Your task to perform on an android device: clear all cookies in the chrome app Image 0: 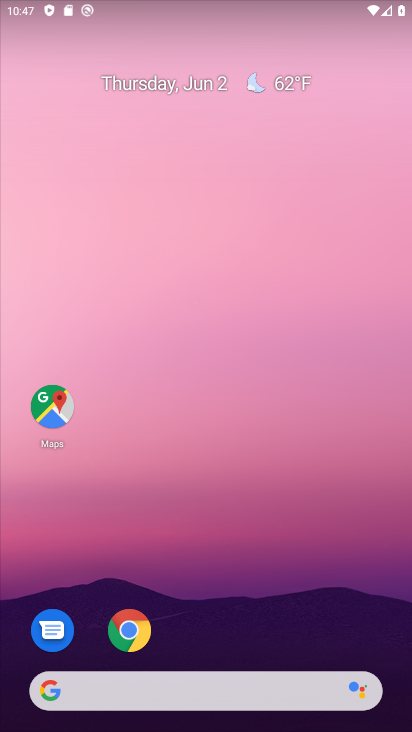
Step 0: press home button
Your task to perform on an android device: clear all cookies in the chrome app Image 1: 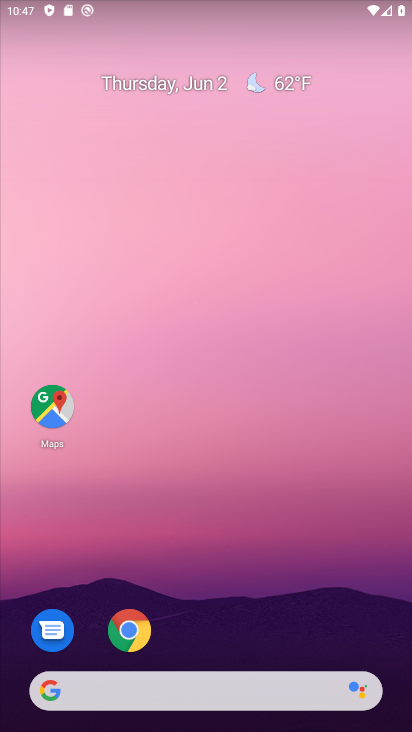
Step 1: drag from (137, 699) to (302, 139)
Your task to perform on an android device: clear all cookies in the chrome app Image 2: 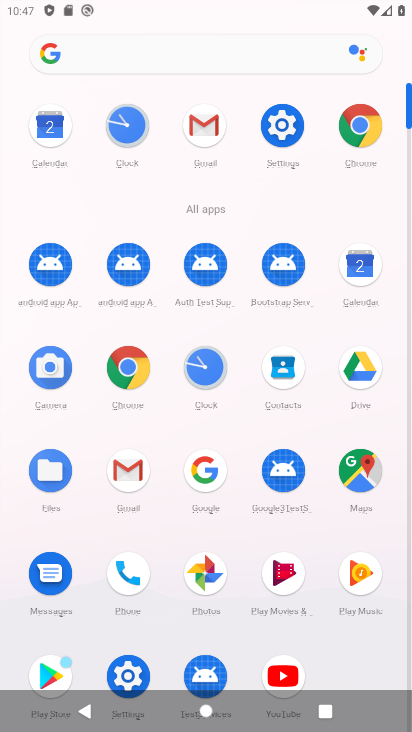
Step 2: click (364, 131)
Your task to perform on an android device: clear all cookies in the chrome app Image 3: 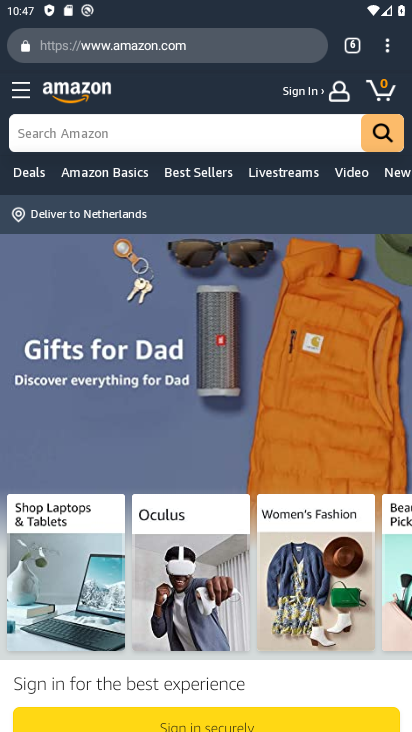
Step 3: drag from (387, 45) to (227, 564)
Your task to perform on an android device: clear all cookies in the chrome app Image 4: 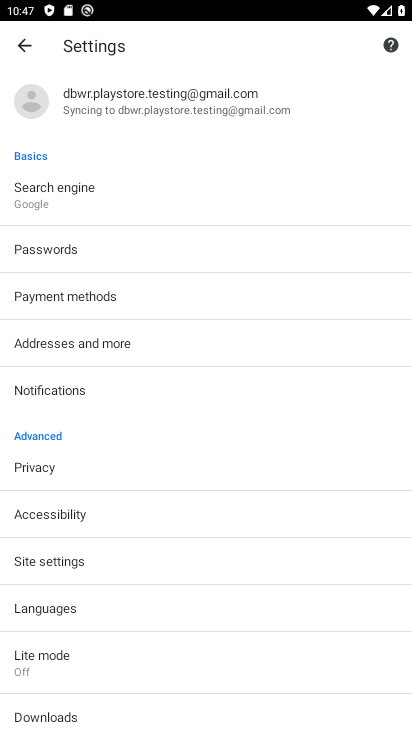
Step 4: click (70, 466)
Your task to perform on an android device: clear all cookies in the chrome app Image 5: 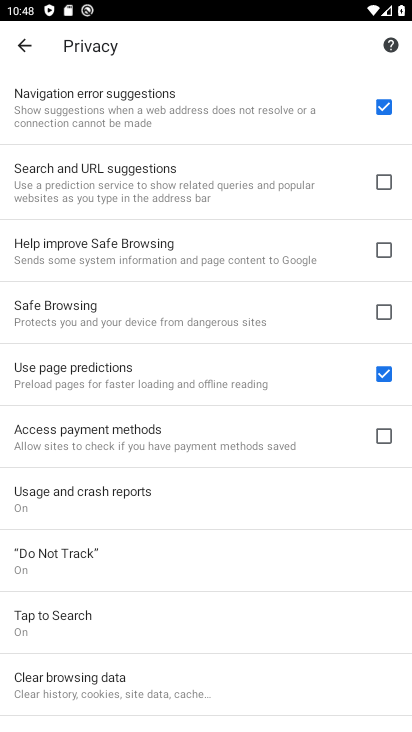
Step 5: drag from (158, 673) to (319, 125)
Your task to perform on an android device: clear all cookies in the chrome app Image 6: 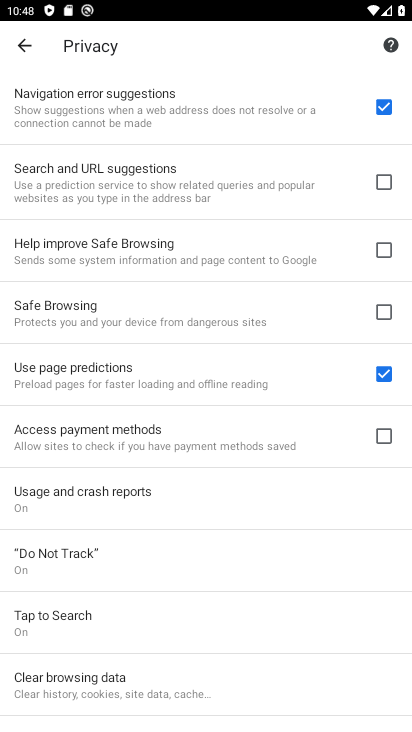
Step 6: click (163, 704)
Your task to perform on an android device: clear all cookies in the chrome app Image 7: 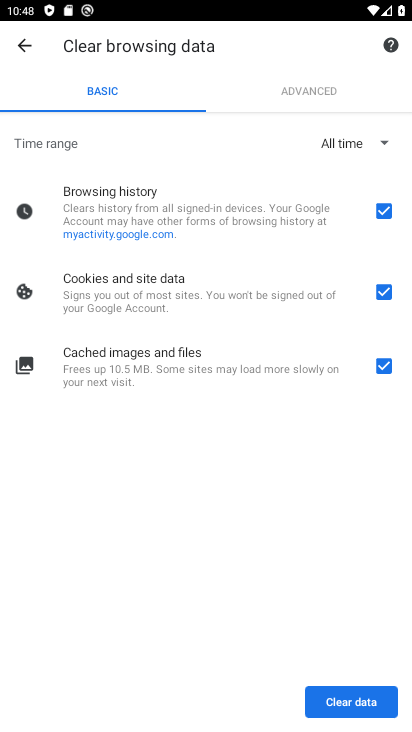
Step 7: click (383, 213)
Your task to perform on an android device: clear all cookies in the chrome app Image 8: 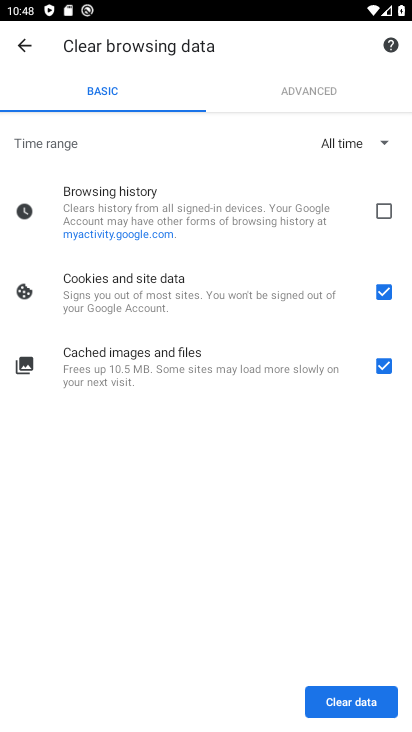
Step 8: click (385, 363)
Your task to perform on an android device: clear all cookies in the chrome app Image 9: 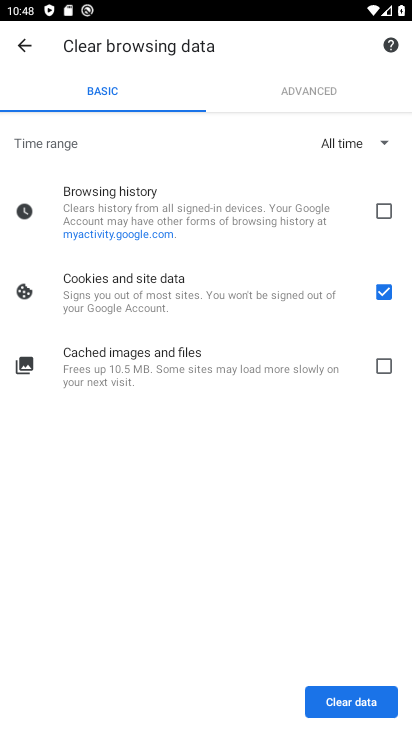
Step 9: click (355, 706)
Your task to perform on an android device: clear all cookies in the chrome app Image 10: 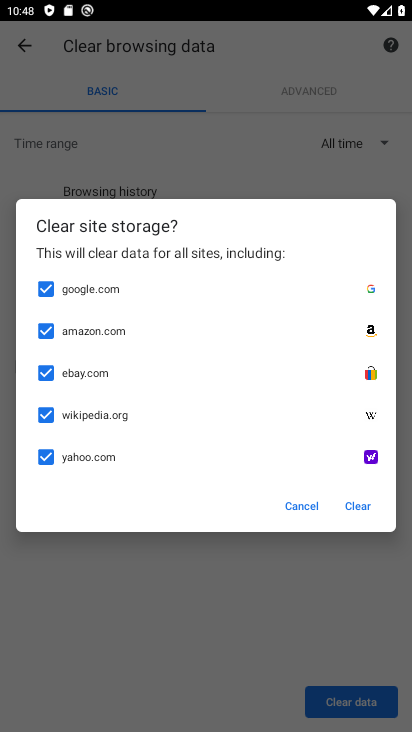
Step 10: click (362, 507)
Your task to perform on an android device: clear all cookies in the chrome app Image 11: 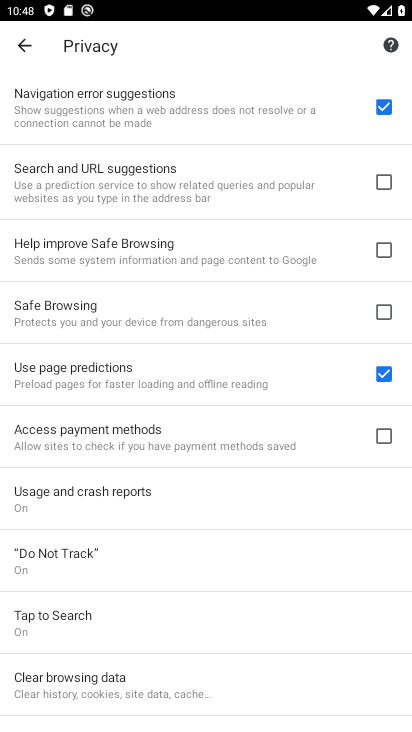
Step 11: task complete